Your task to perform on an android device: delete location history Image 0: 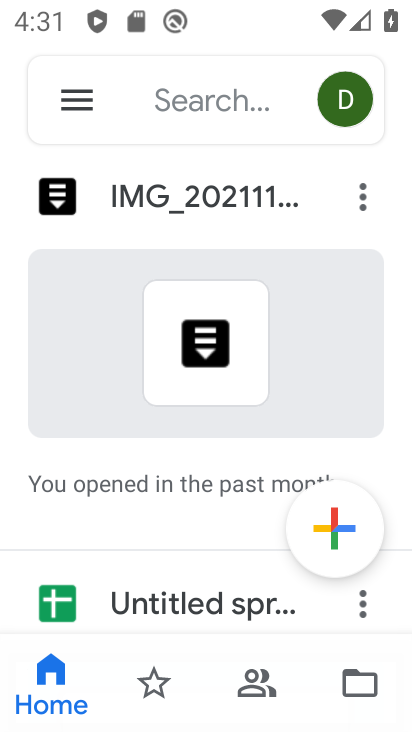
Step 0: press home button
Your task to perform on an android device: delete location history Image 1: 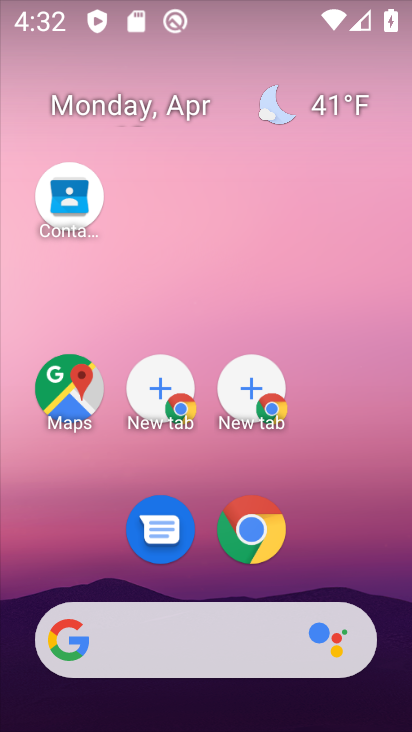
Step 1: click (55, 389)
Your task to perform on an android device: delete location history Image 2: 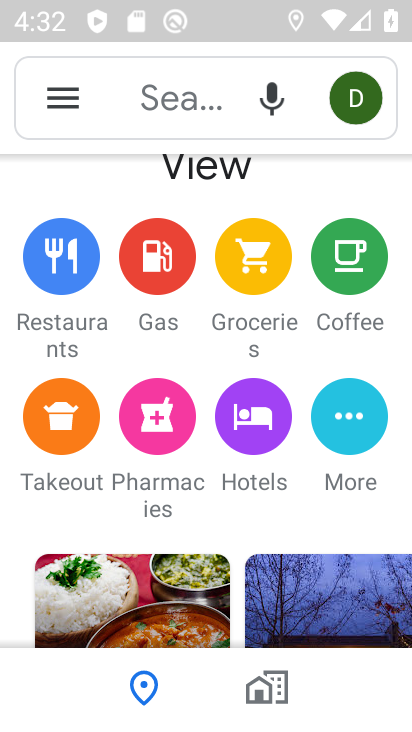
Step 2: click (73, 83)
Your task to perform on an android device: delete location history Image 3: 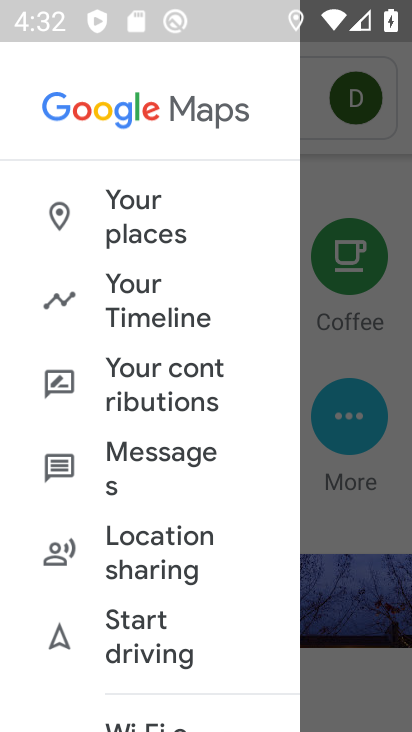
Step 3: click (141, 306)
Your task to perform on an android device: delete location history Image 4: 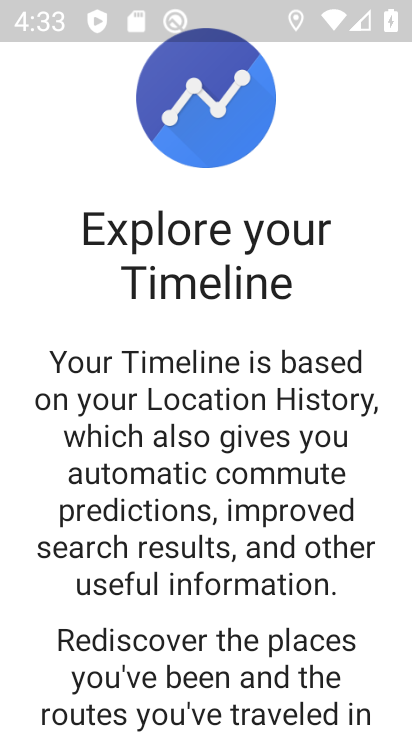
Step 4: drag from (173, 646) to (290, 62)
Your task to perform on an android device: delete location history Image 5: 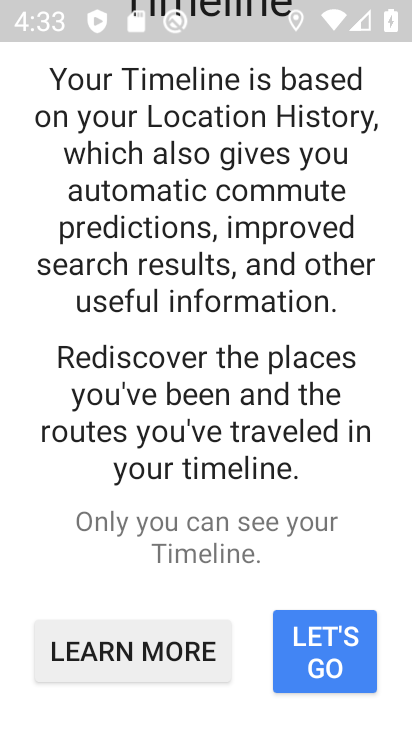
Step 5: click (338, 658)
Your task to perform on an android device: delete location history Image 6: 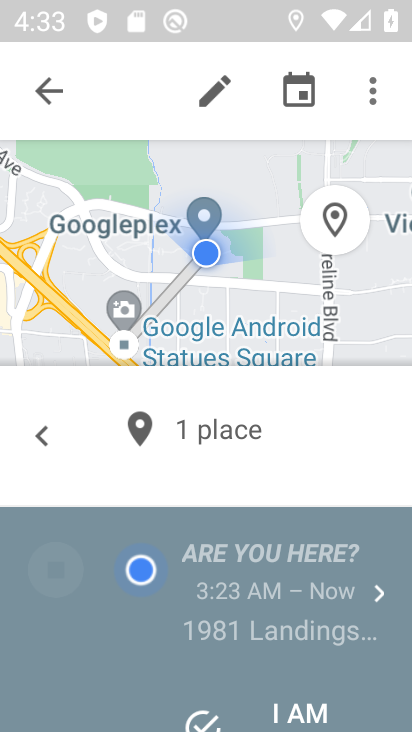
Step 6: click (375, 82)
Your task to perform on an android device: delete location history Image 7: 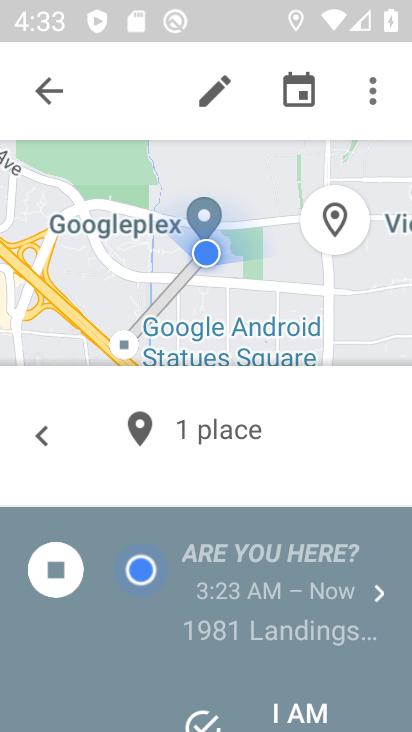
Step 7: click (378, 93)
Your task to perform on an android device: delete location history Image 8: 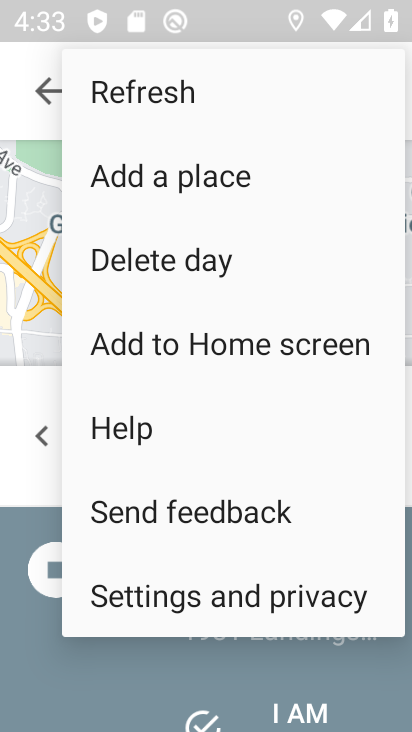
Step 8: click (147, 591)
Your task to perform on an android device: delete location history Image 9: 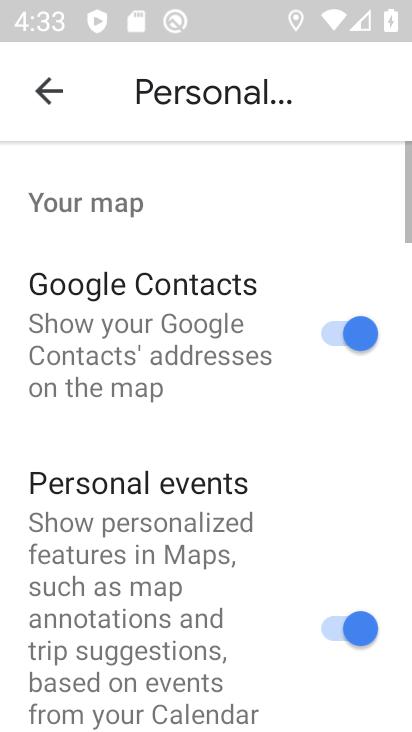
Step 9: drag from (140, 603) to (240, 57)
Your task to perform on an android device: delete location history Image 10: 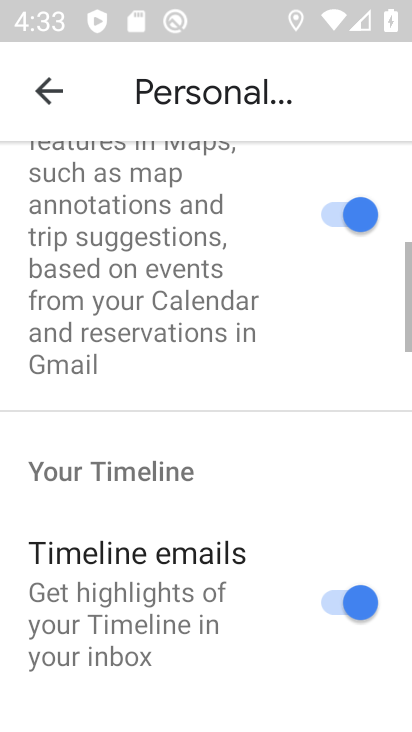
Step 10: click (238, 36)
Your task to perform on an android device: delete location history Image 11: 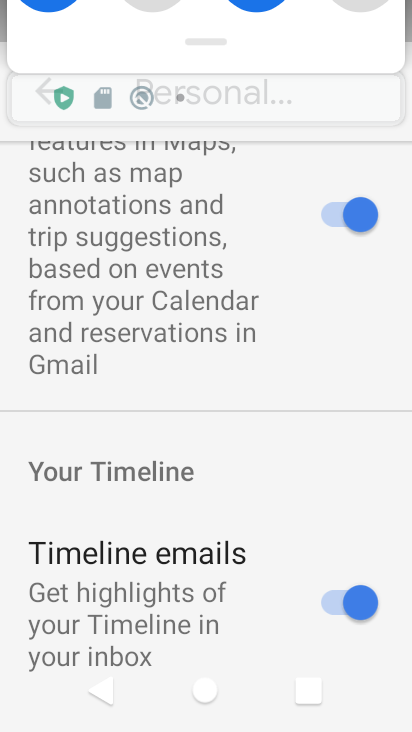
Step 11: drag from (168, 410) to (221, 59)
Your task to perform on an android device: delete location history Image 12: 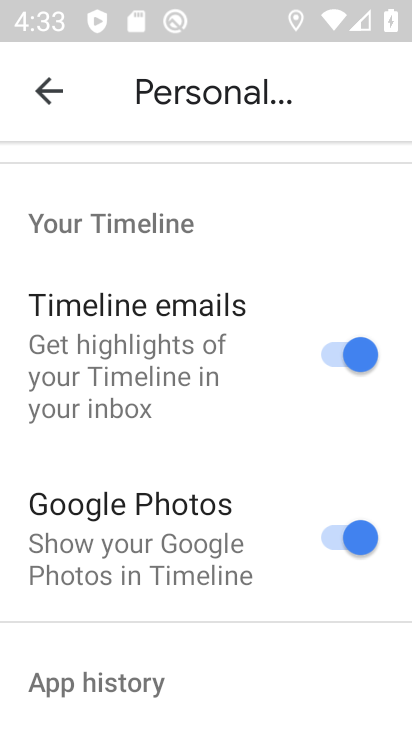
Step 12: drag from (148, 528) to (240, 48)
Your task to perform on an android device: delete location history Image 13: 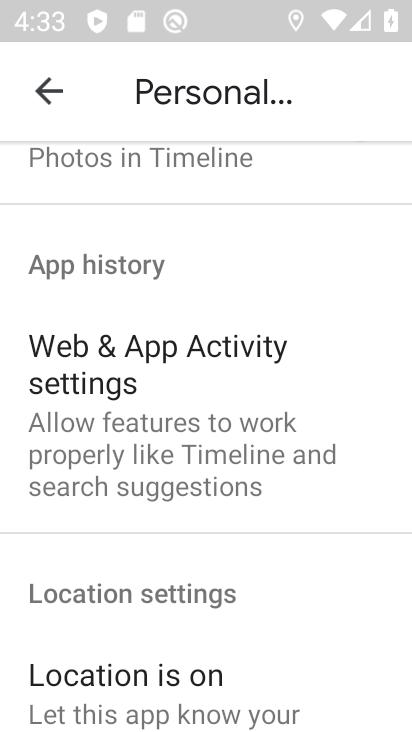
Step 13: drag from (123, 563) to (257, 3)
Your task to perform on an android device: delete location history Image 14: 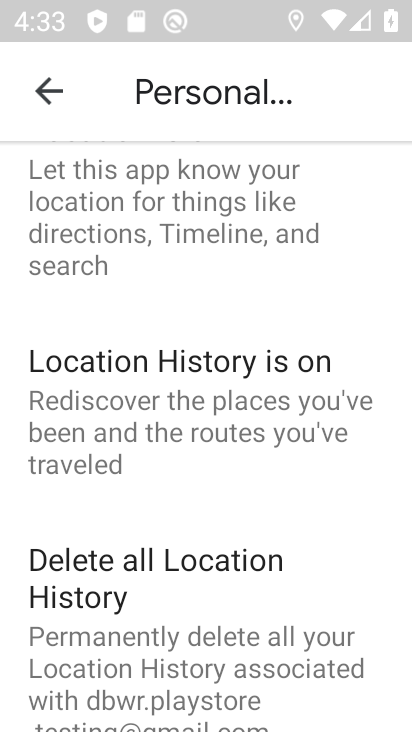
Step 14: click (113, 585)
Your task to perform on an android device: delete location history Image 15: 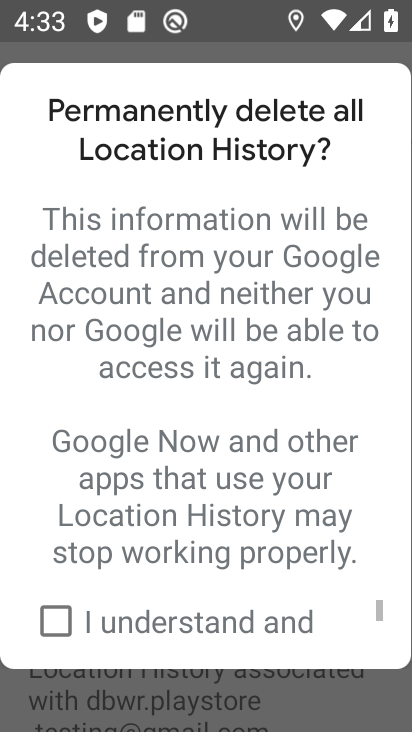
Step 15: click (53, 617)
Your task to perform on an android device: delete location history Image 16: 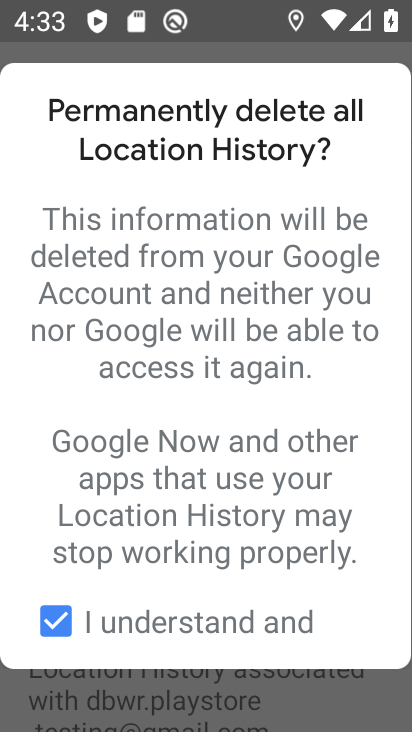
Step 16: task complete